Your task to perform on an android device: turn on priority inbox in the gmail app Image 0: 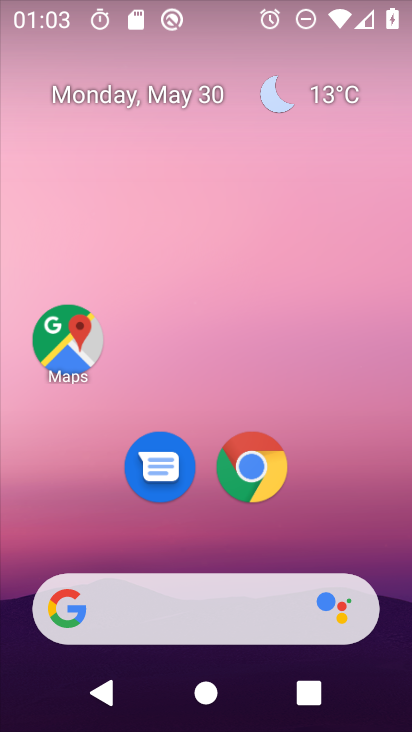
Step 0: drag from (184, 558) to (189, 158)
Your task to perform on an android device: turn on priority inbox in the gmail app Image 1: 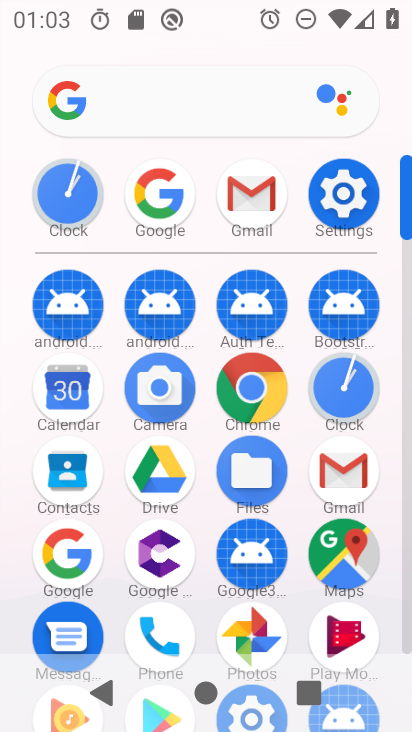
Step 1: click (228, 191)
Your task to perform on an android device: turn on priority inbox in the gmail app Image 2: 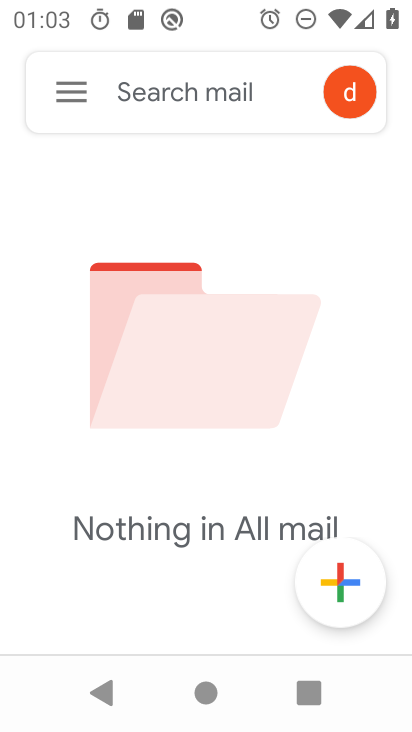
Step 2: click (49, 101)
Your task to perform on an android device: turn on priority inbox in the gmail app Image 3: 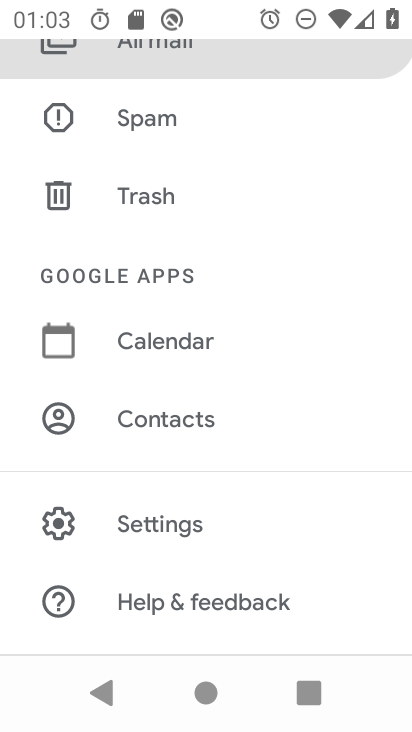
Step 3: click (184, 530)
Your task to perform on an android device: turn on priority inbox in the gmail app Image 4: 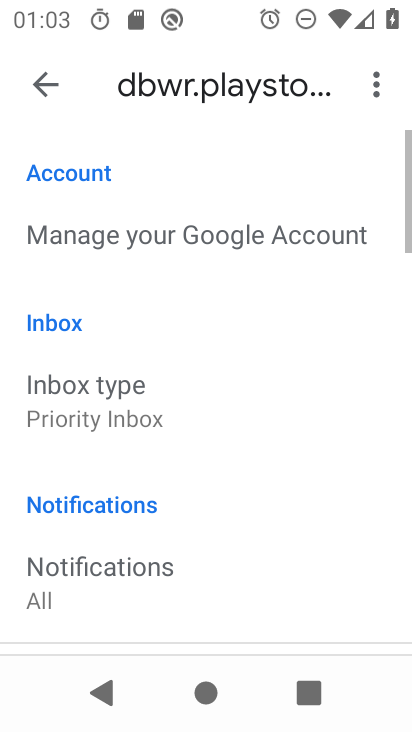
Step 4: task complete